Your task to perform on an android device: turn smart compose on in the gmail app Image 0: 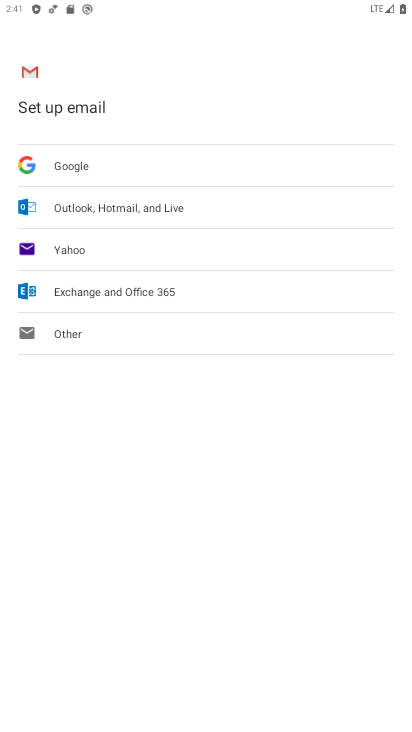
Step 0: press home button
Your task to perform on an android device: turn smart compose on in the gmail app Image 1: 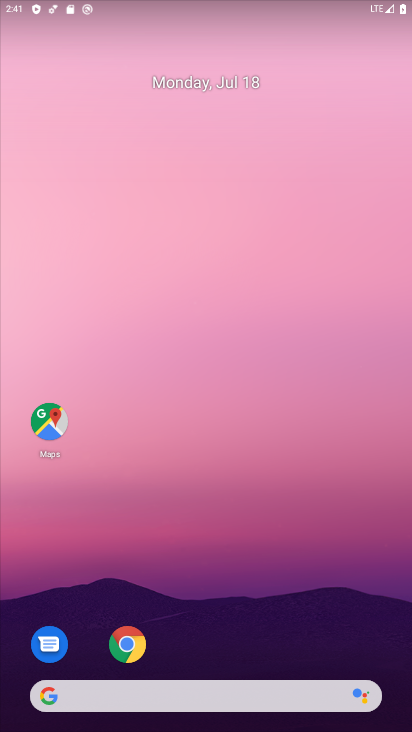
Step 1: drag from (218, 684) to (254, 255)
Your task to perform on an android device: turn smart compose on in the gmail app Image 2: 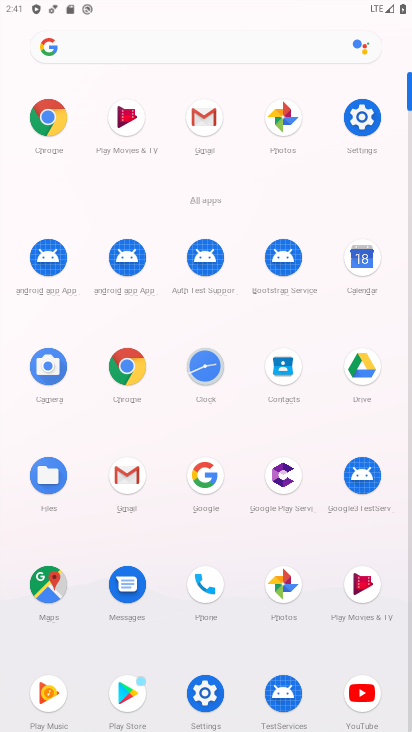
Step 2: click (134, 467)
Your task to perform on an android device: turn smart compose on in the gmail app Image 3: 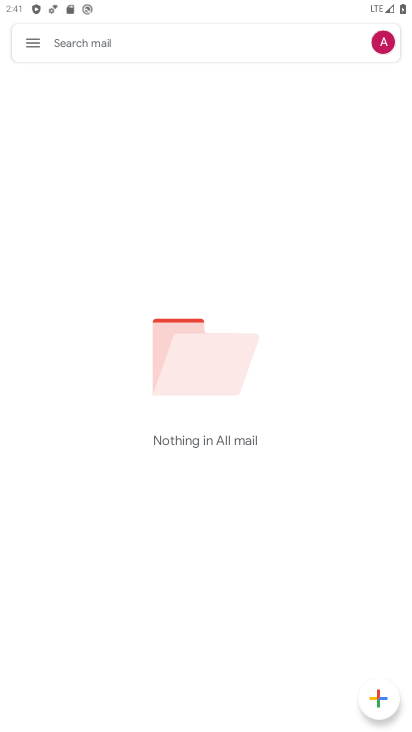
Step 3: click (35, 34)
Your task to perform on an android device: turn smart compose on in the gmail app Image 4: 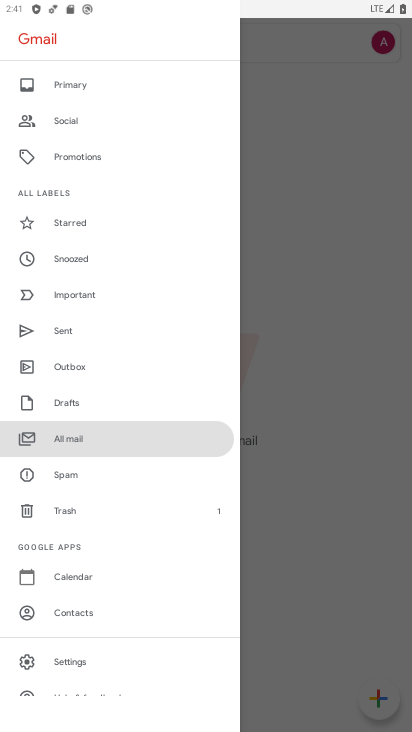
Step 4: click (73, 649)
Your task to perform on an android device: turn smart compose on in the gmail app Image 5: 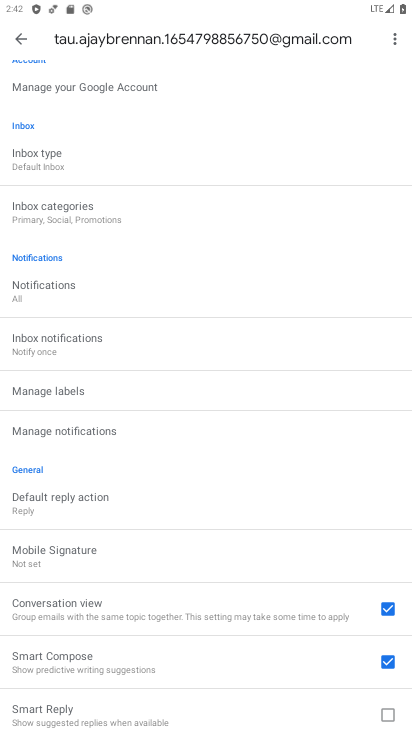
Step 5: task complete